Your task to perform on an android device: Clear the shopping cart on newegg.com. Add "dell xps" to the cart on newegg.com Image 0: 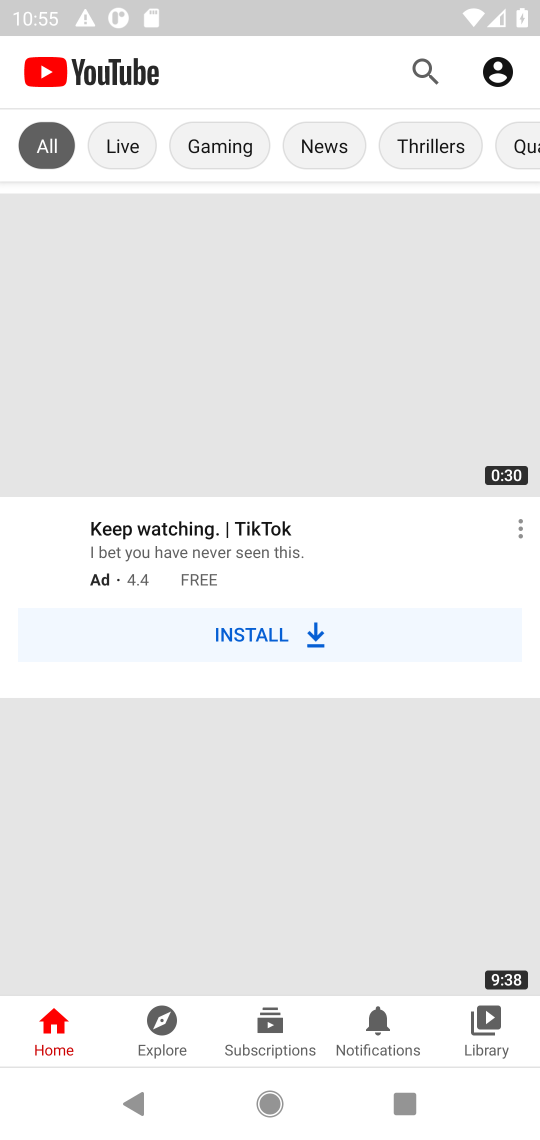
Step 0: press home button
Your task to perform on an android device: Clear the shopping cart on newegg.com. Add "dell xps" to the cart on newegg.com Image 1: 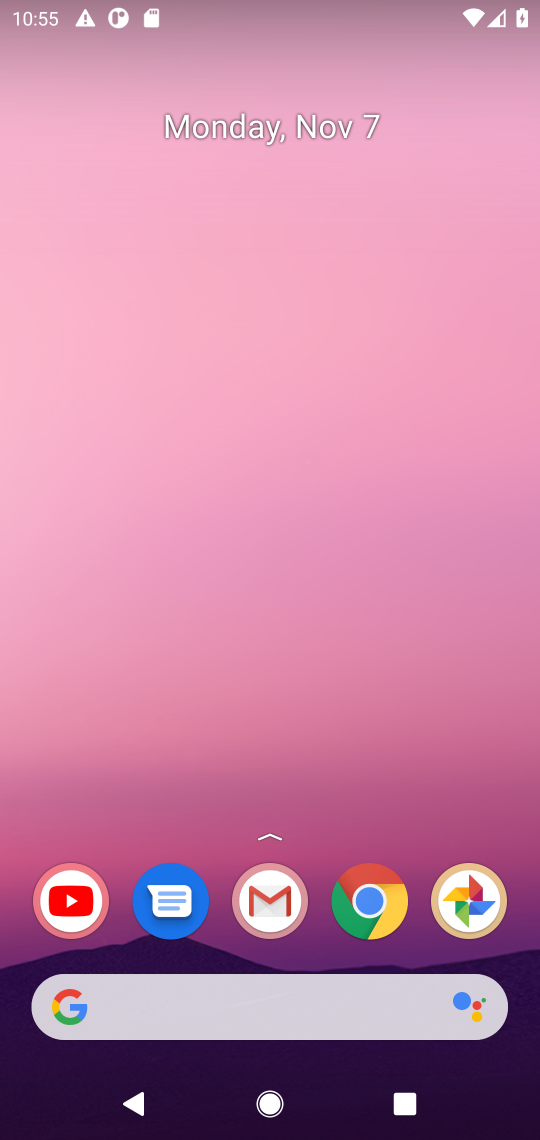
Step 1: click (357, 903)
Your task to perform on an android device: Clear the shopping cart on newegg.com. Add "dell xps" to the cart on newegg.com Image 2: 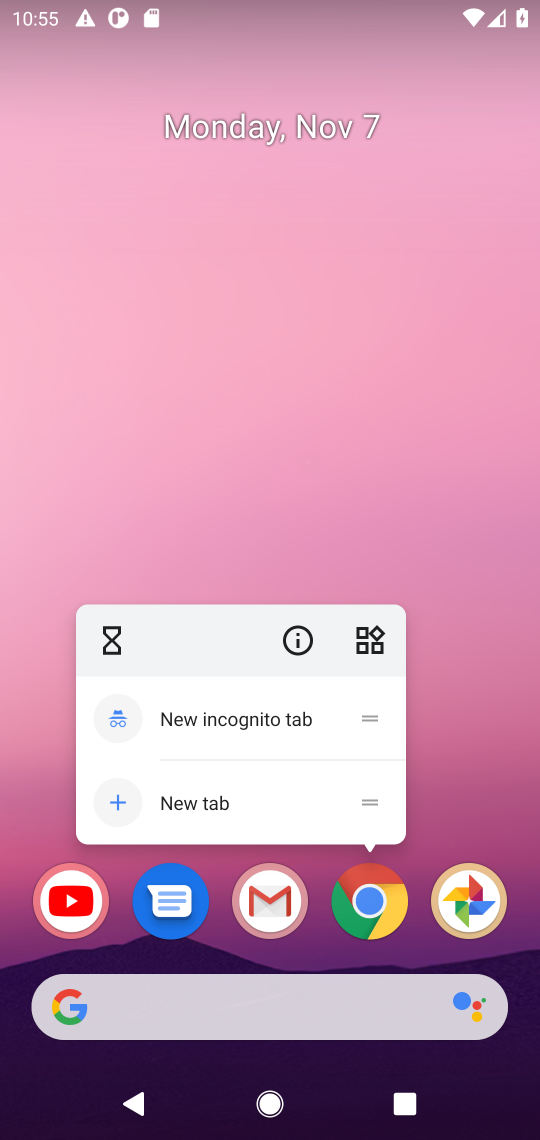
Step 2: click (362, 911)
Your task to perform on an android device: Clear the shopping cart on newegg.com. Add "dell xps" to the cart on newegg.com Image 3: 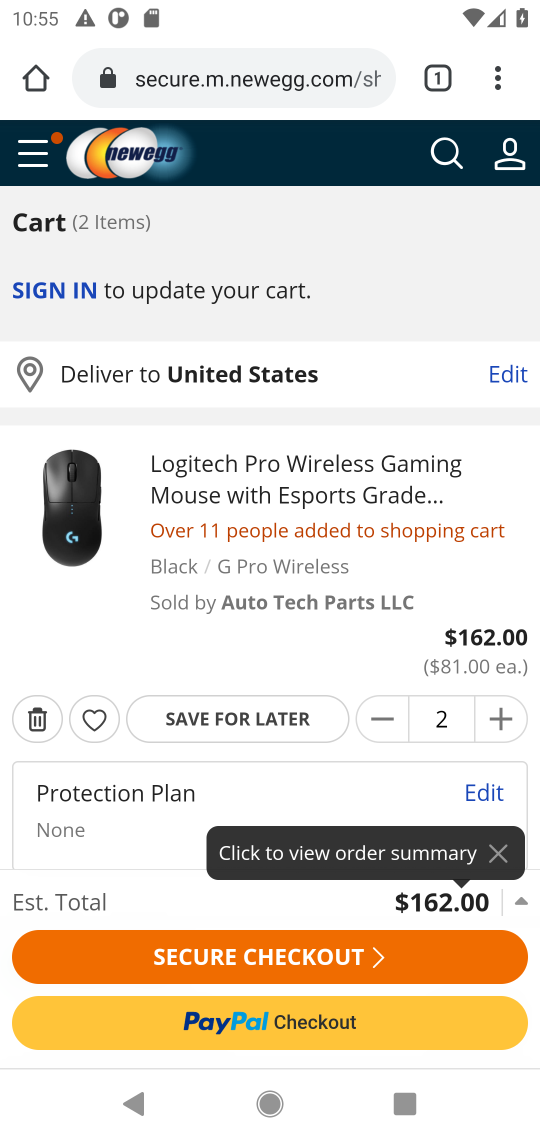
Step 3: click (281, 77)
Your task to perform on an android device: Clear the shopping cart on newegg.com. Add "dell xps" to the cart on newegg.com Image 4: 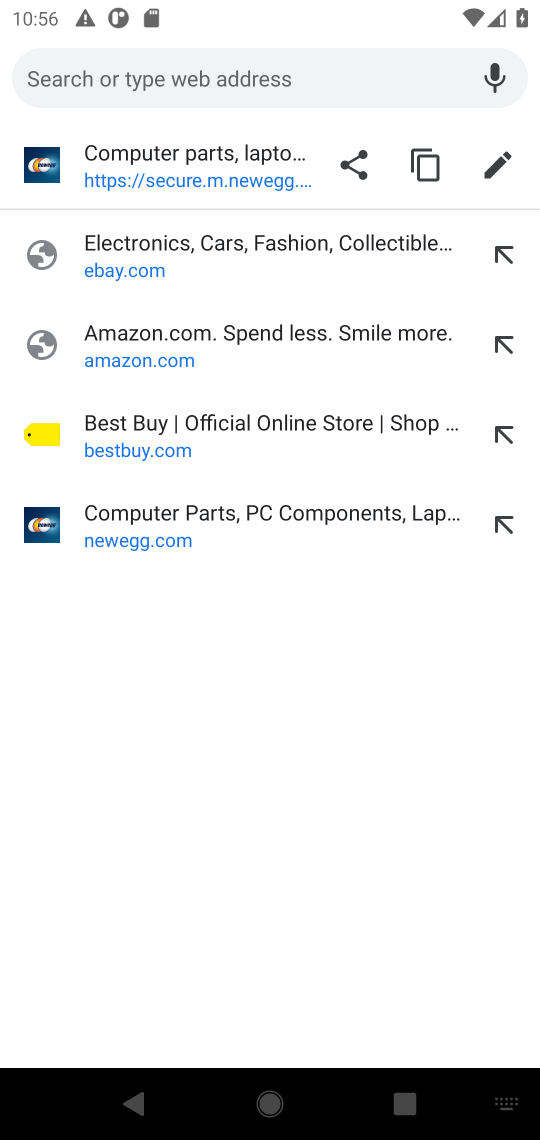
Step 4: type "newegg.com"
Your task to perform on an android device: Clear the shopping cart on newegg.com. Add "dell xps" to the cart on newegg.com Image 5: 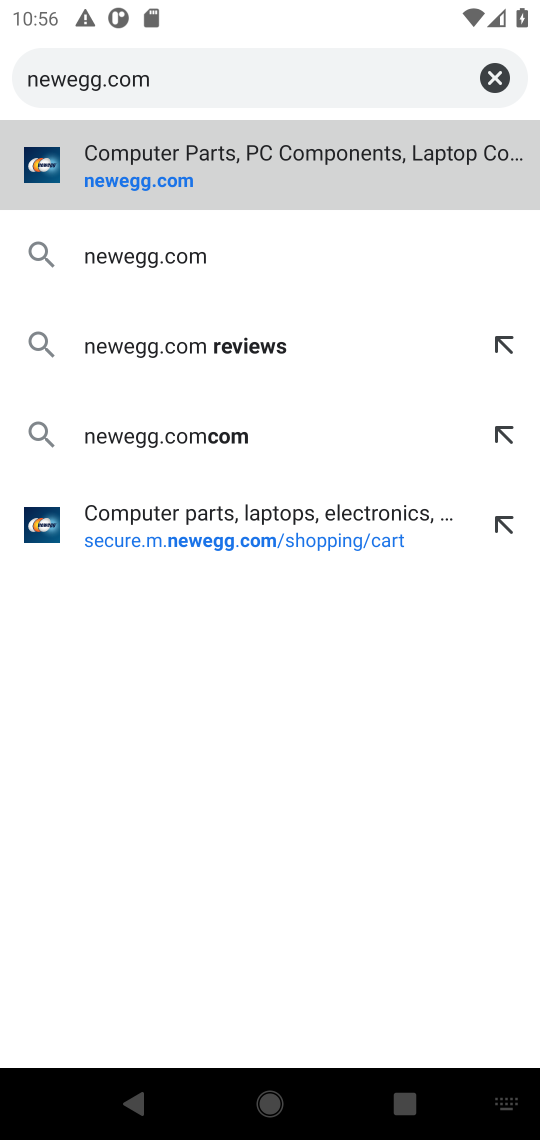
Step 5: click (160, 150)
Your task to perform on an android device: Clear the shopping cart on newegg.com. Add "dell xps" to the cart on newegg.com Image 6: 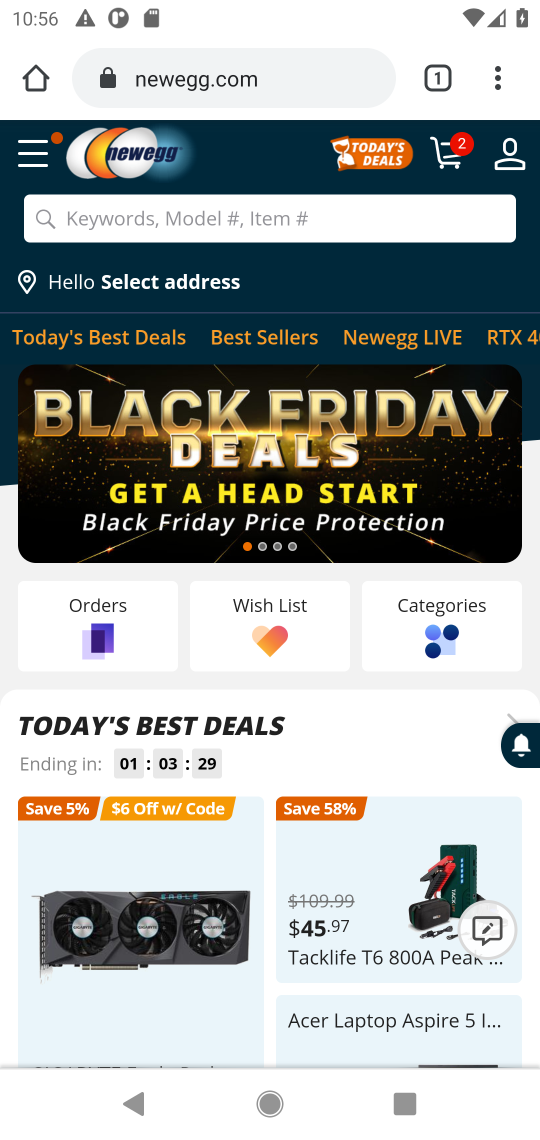
Step 6: click (236, 235)
Your task to perform on an android device: Clear the shopping cart on newegg.com. Add "dell xps" to the cart on newegg.com Image 7: 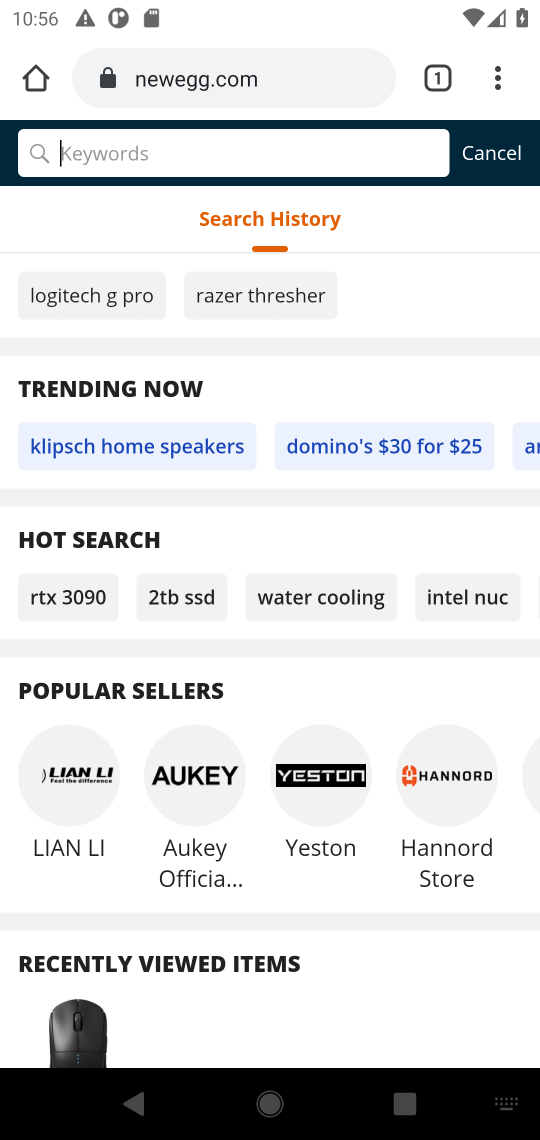
Step 7: type "dell xps"
Your task to perform on an android device: Clear the shopping cart on newegg.com. Add "dell xps" to the cart on newegg.com Image 8: 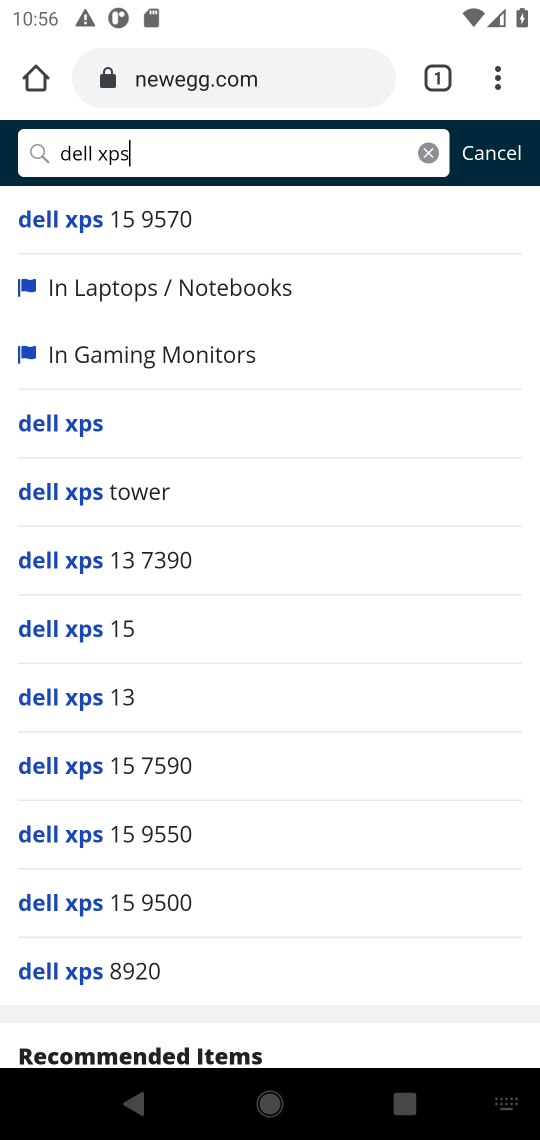
Step 8: press enter
Your task to perform on an android device: Clear the shopping cart on newegg.com. Add "dell xps" to the cart on newegg.com Image 9: 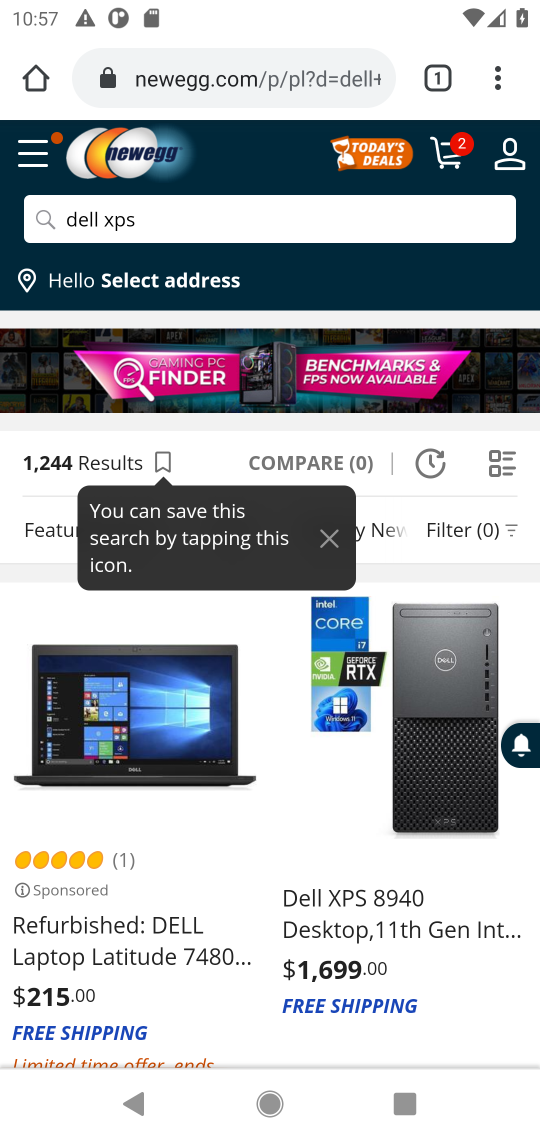
Step 9: click (184, 838)
Your task to perform on an android device: Clear the shopping cart on newegg.com. Add "dell xps" to the cart on newegg.com Image 10: 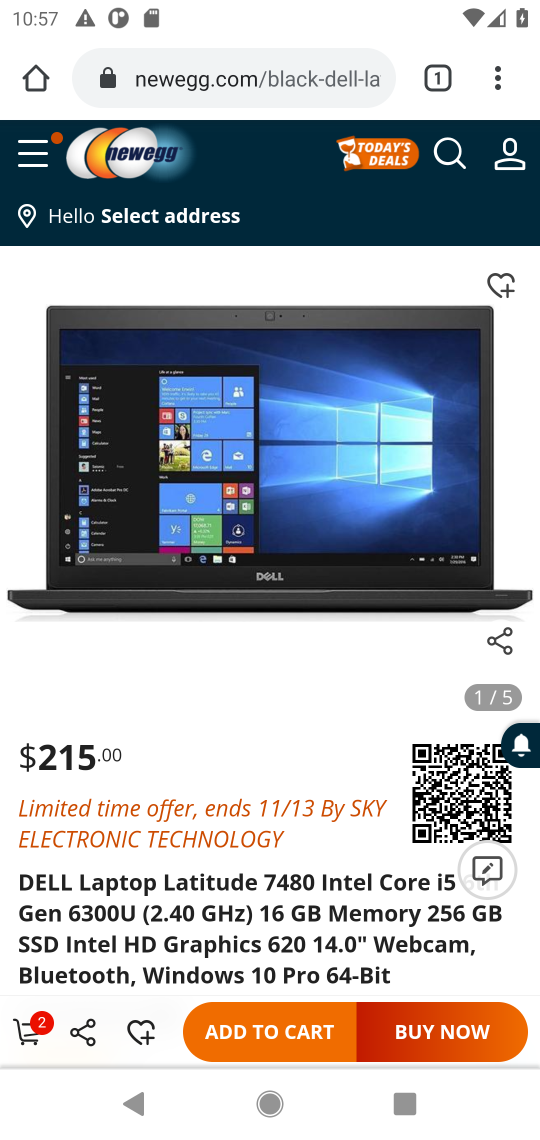
Step 10: click (245, 1030)
Your task to perform on an android device: Clear the shopping cart on newegg.com. Add "dell xps" to the cart on newegg.com Image 11: 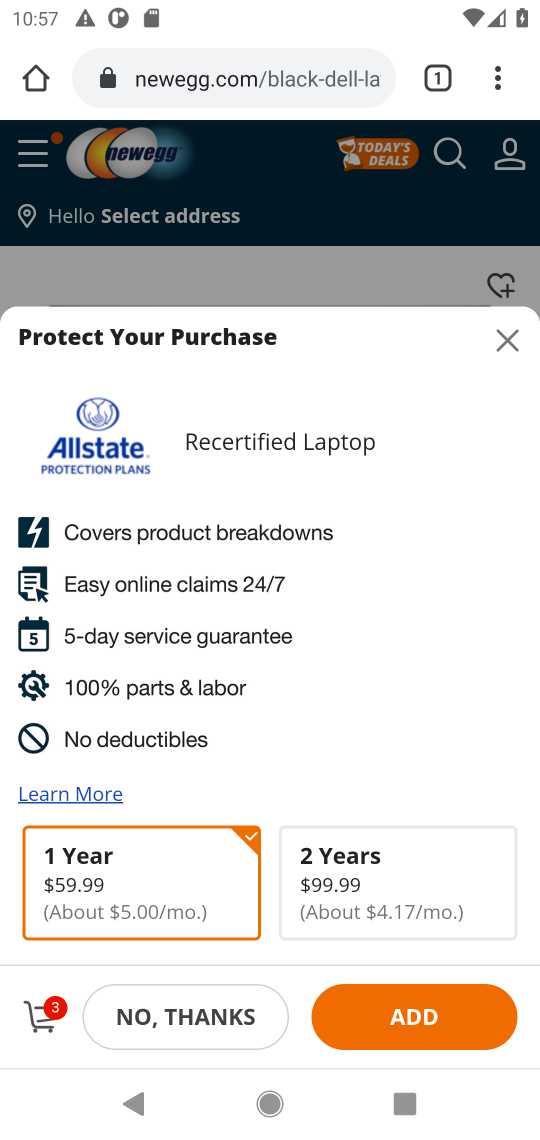
Step 11: click (195, 1019)
Your task to perform on an android device: Clear the shopping cart on newegg.com. Add "dell xps" to the cart on newegg.com Image 12: 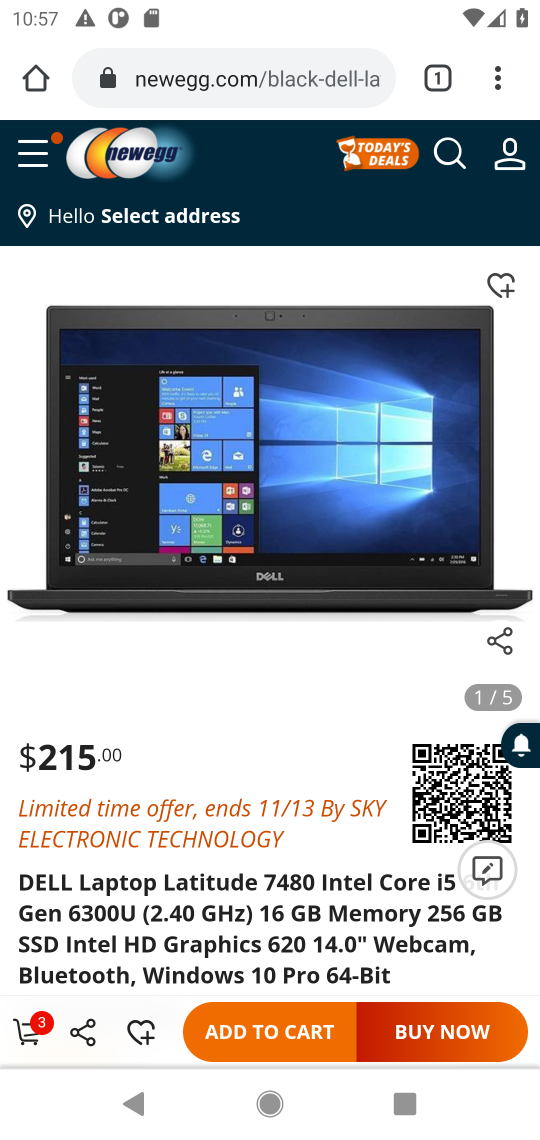
Step 12: click (13, 1037)
Your task to perform on an android device: Clear the shopping cart on newegg.com. Add "dell xps" to the cart on newegg.com Image 13: 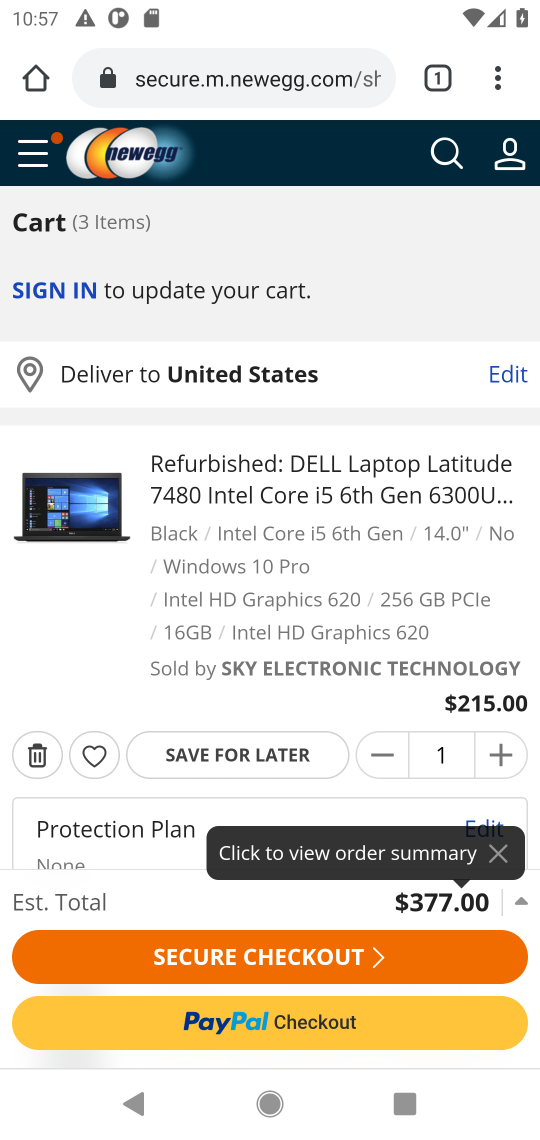
Step 13: task complete